Your task to perform on an android device: Turn on the flashlight Image 0: 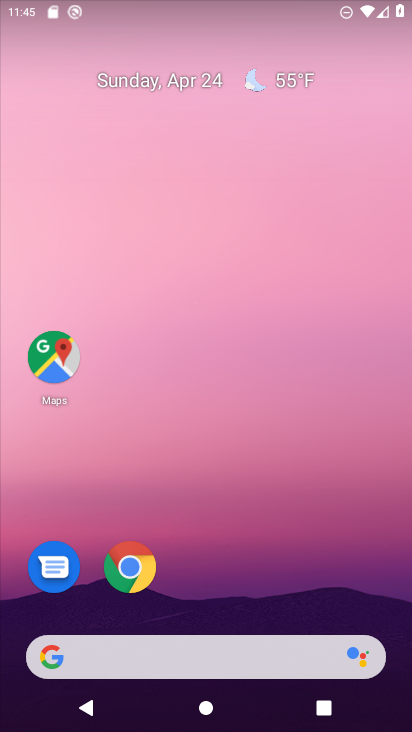
Step 0: drag from (383, 230) to (371, 134)
Your task to perform on an android device: Turn on the flashlight Image 1: 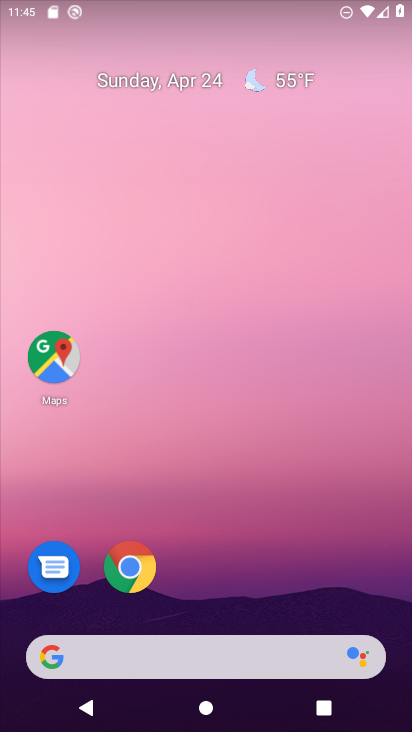
Step 1: drag from (401, 654) to (331, 121)
Your task to perform on an android device: Turn on the flashlight Image 2: 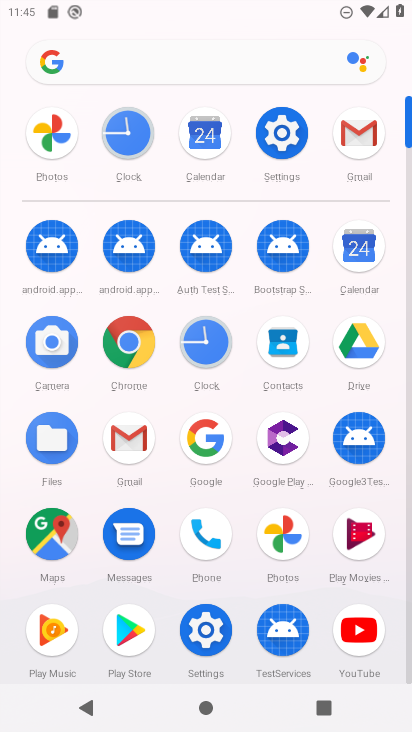
Step 2: click (283, 136)
Your task to perform on an android device: Turn on the flashlight Image 3: 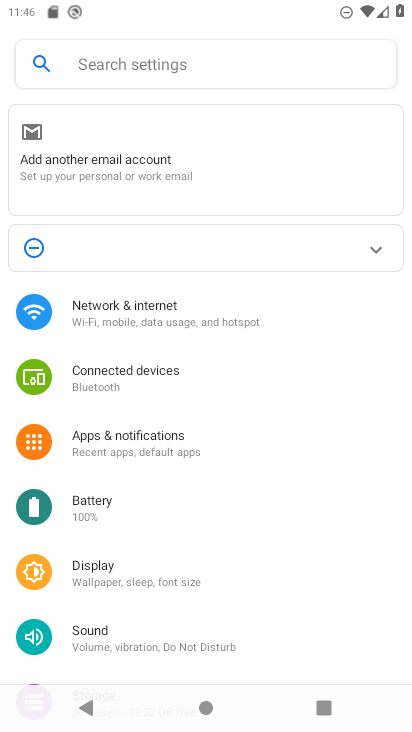
Step 3: click (100, 439)
Your task to perform on an android device: Turn on the flashlight Image 4: 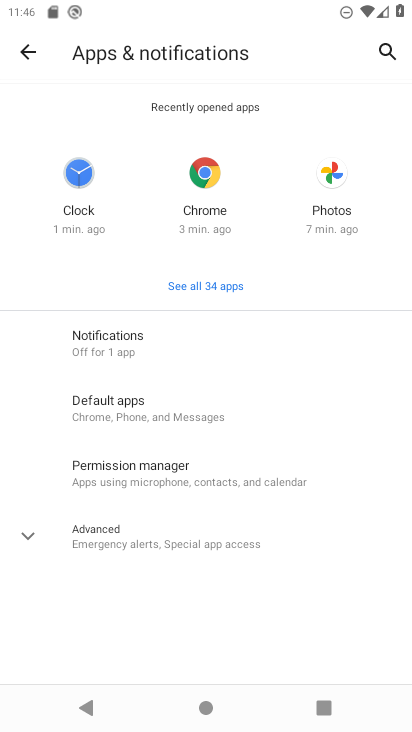
Step 4: task complete